Your task to perform on an android device: When is my next meeting? Image 0: 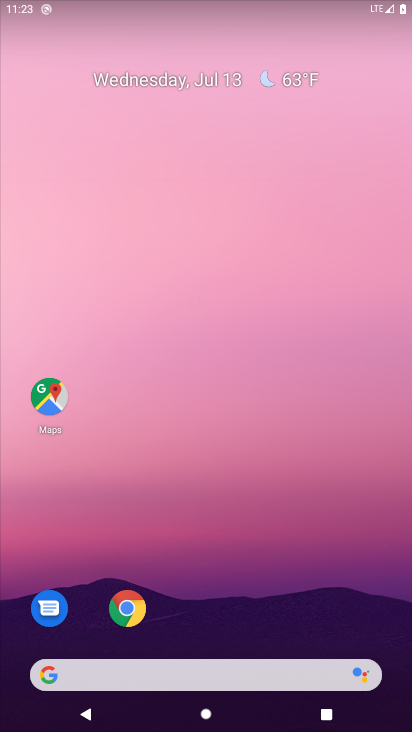
Step 0: drag from (318, 558) to (338, 146)
Your task to perform on an android device: When is my next meeting? Image 1: 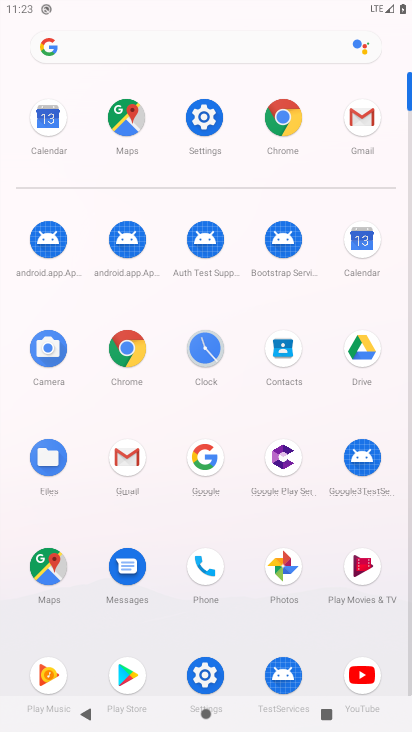
Step 1: click (369, 111)
Your task to perform on an android device: When is my next meeting? Image 2: 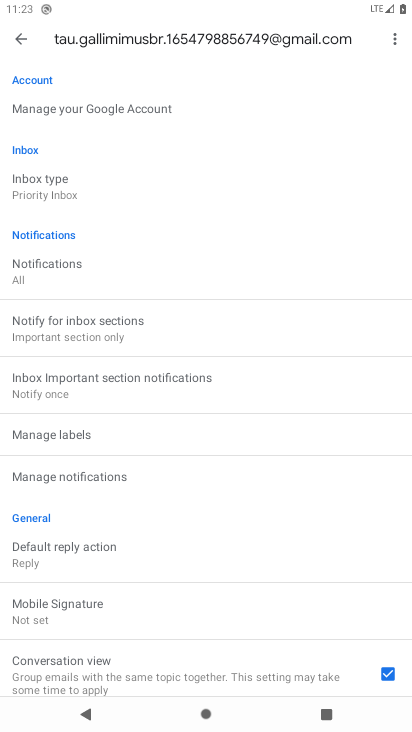
Step 2: press home button
Your task to perform on an android device: When is my next meeting? Image 3: 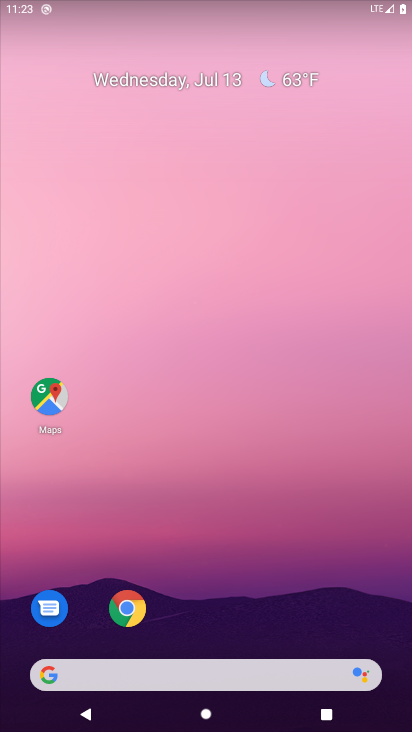
Step 3: drag from (257, 553) to (364, 138)
Your task to perform on an android device: When is my next meeting? Image 4: 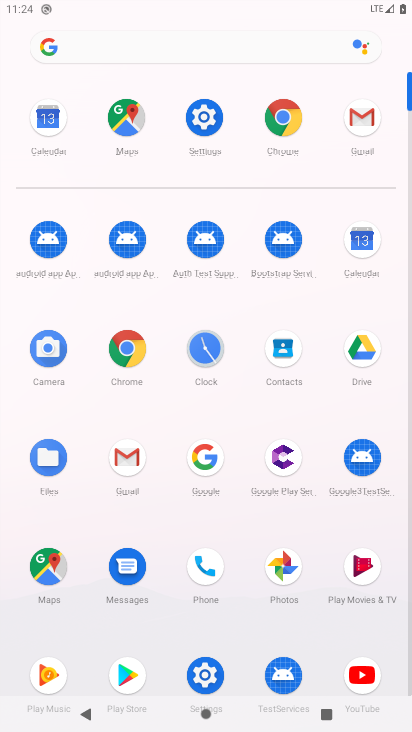
Step 4: click (361, 237)
Your task to perform on an android device: When is my next meeting? Image 5: 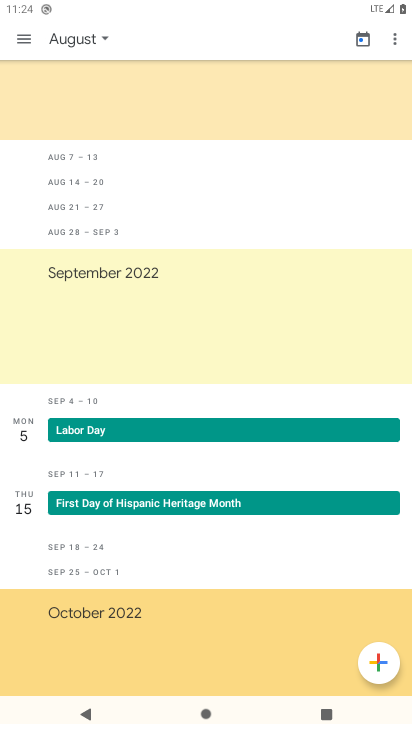
Step 5: click (99, 37)
Your task to perform on an android device: When is my next meeting? Image 6: 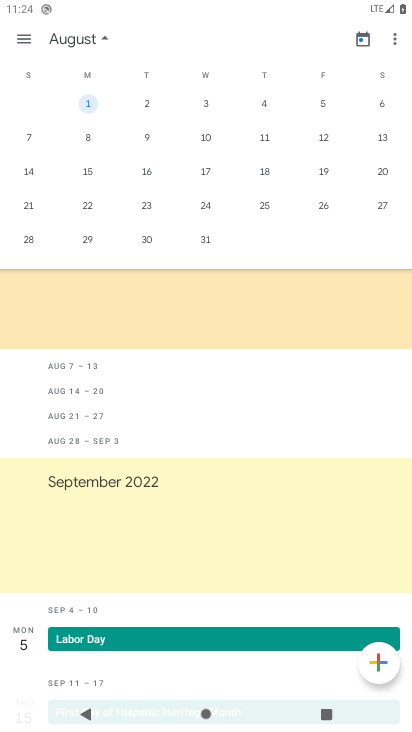
Step 6: drag from (81, 128) to (365, 140)
Your task to perform on an android device: When is my next meeting? Image 7: 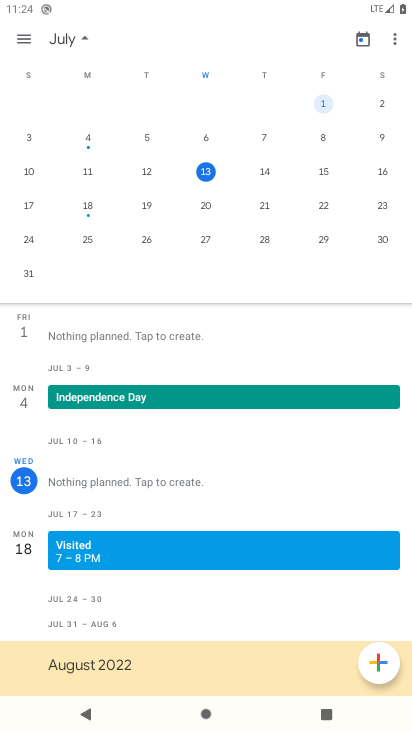
Step 7: click (263, 163)
Your task to perform on an android device: When is my next meeting? Image 8: 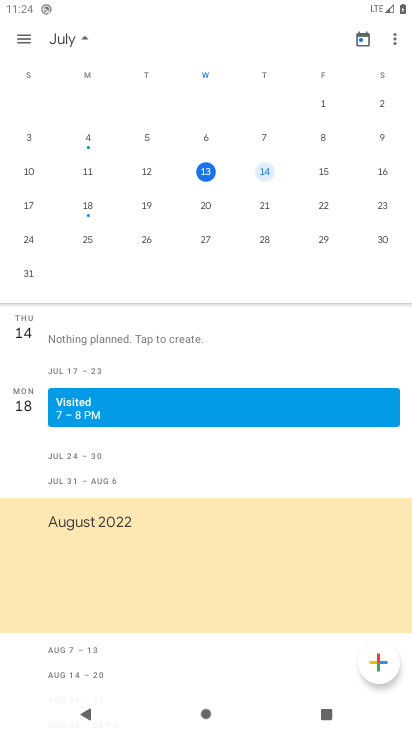
Step 8: task complete